Your task to perform on an android device: Open the map Image 0: 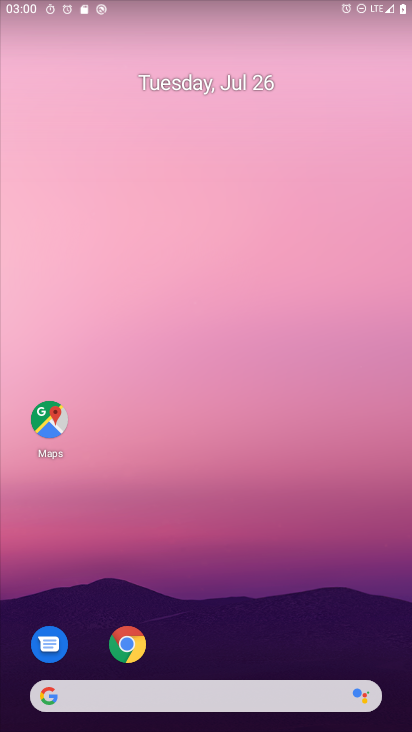
Step 0: click (54, 422)
Your task to perform on an android device: Open the map Image 1: 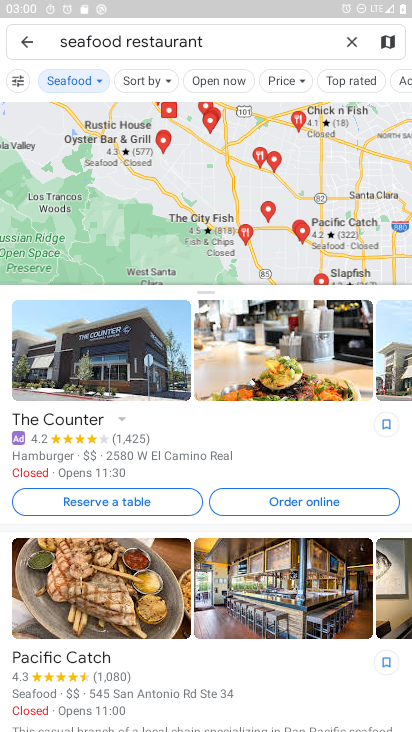
Step 1: task complete